Your task to perform on an android device: turn on javascript in the chrome app Image 0: 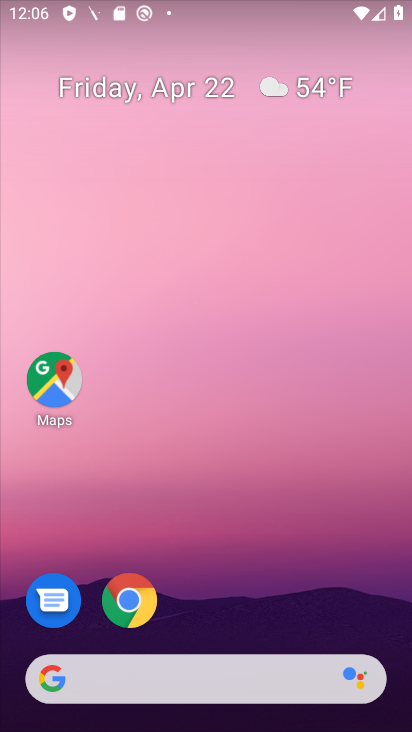
Step 0: click (370, 252)
Your task to perform on an android device: turn on javascript in the chrome app Image 1: 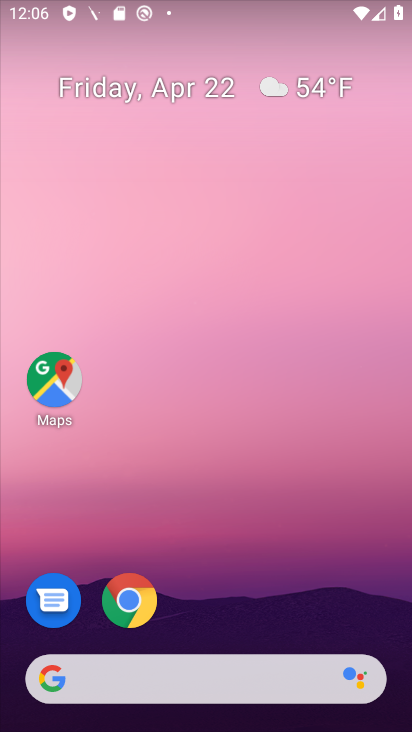
Step 1: drag from (357, 214) to (359, 126)
Your task to perform on an android device: turn on javascript in the chrome app Image 2: 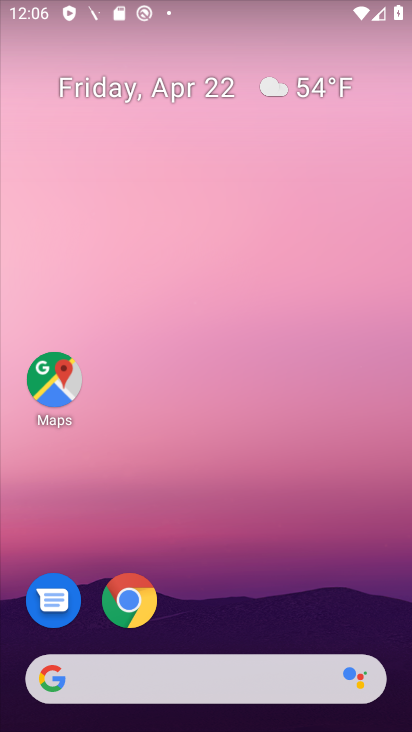
Step 2: drag from (389, 644) to (364, 123)
Your task to perform on an android device: turn on javascript in the chrome app Image 3: 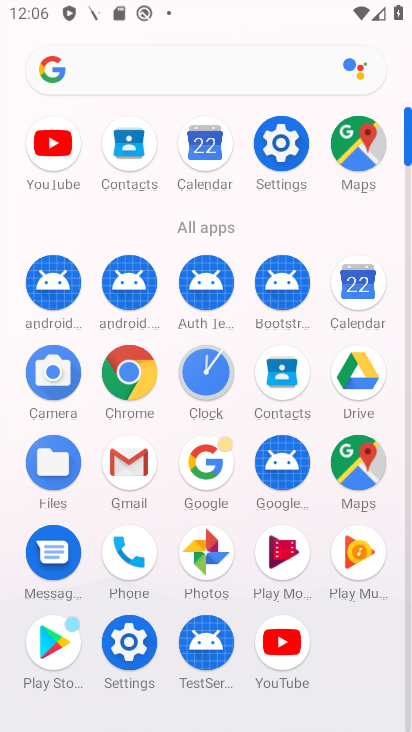
Step 3: click (131, 362)
Your task to perform on an android device: turn on javascript in the chrome app Image 4: 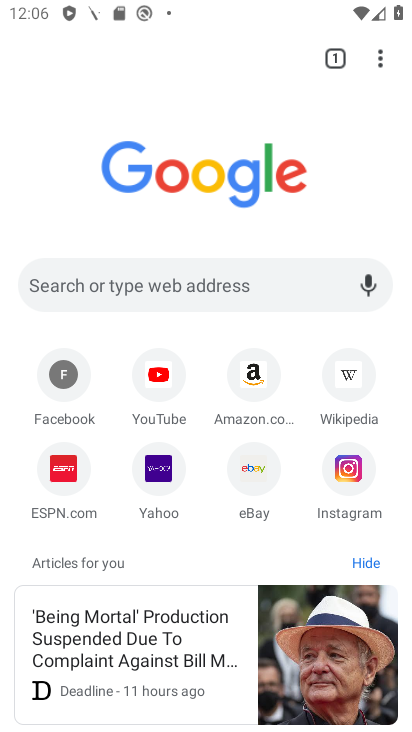
Step 4: click (381, 51)
Your task to perform on an android device: turn on javascript in the chrome app Image 5: 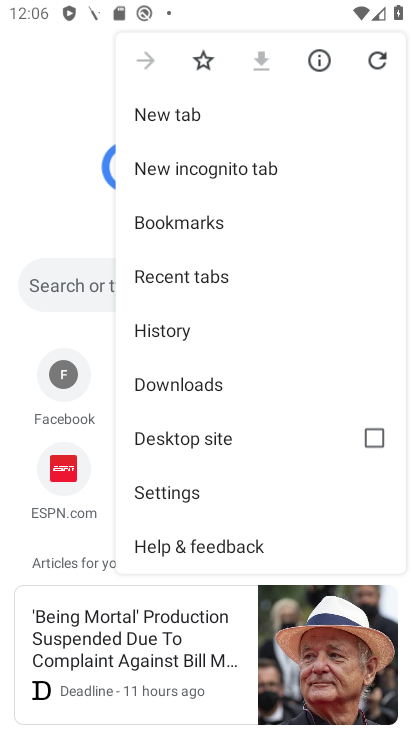
Step 5: click (140, 490)
Your task to perform on an android device: turn on javascript in the chrome app Image 6: 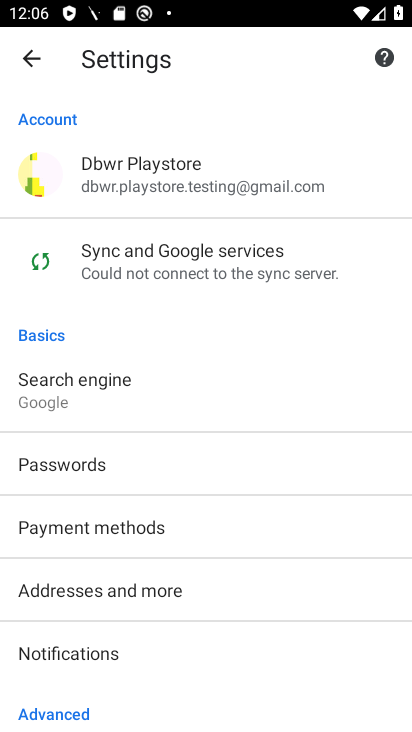
Step 6: drag from (305, 673) to (283, 350)
Your task to perform on an android device: turn on javascript in the chrome app Image 7: 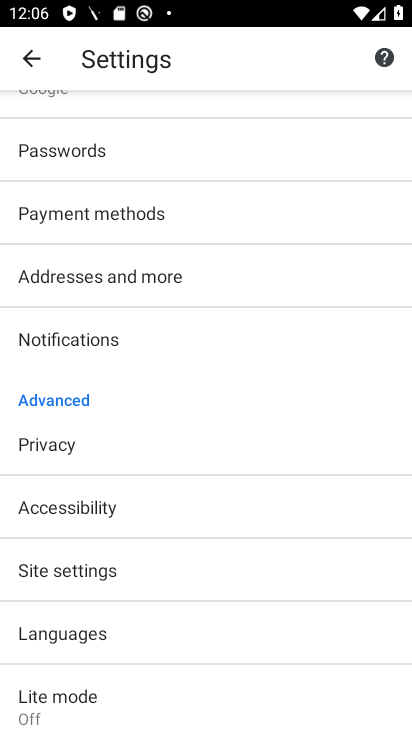
Step 7: click (61, 572)
Your task to perform on an android device: turn on javascript in the chrome app Image 8: 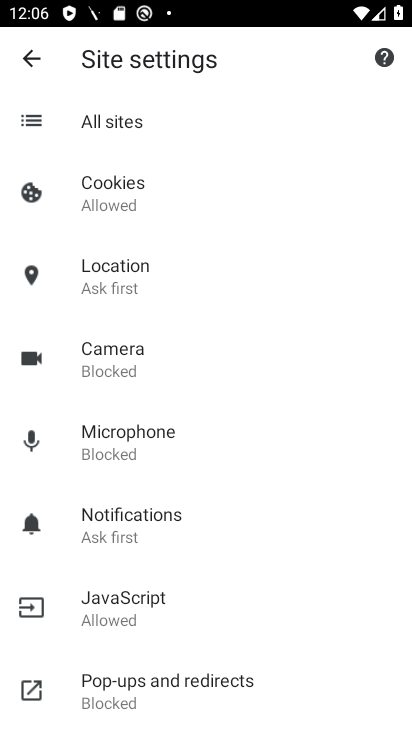
Step 8: click (108, 611)
Your task to perform on an android device: turn on javascript in the chrome app Image 9: 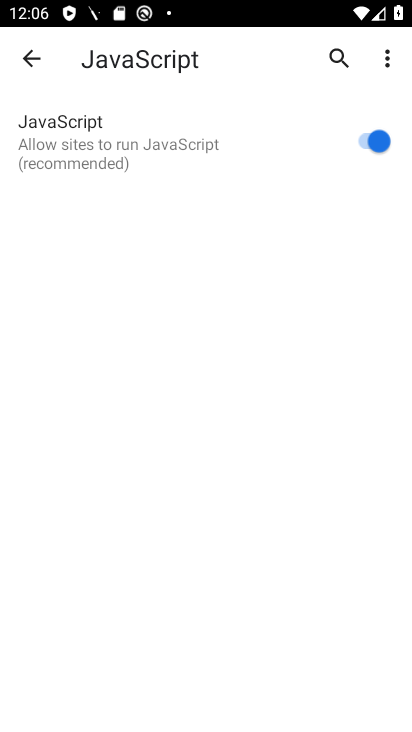
Step 9: task complete